Your task to perform on an android device: Open the phone app and click the voicemail tab. Image 0: 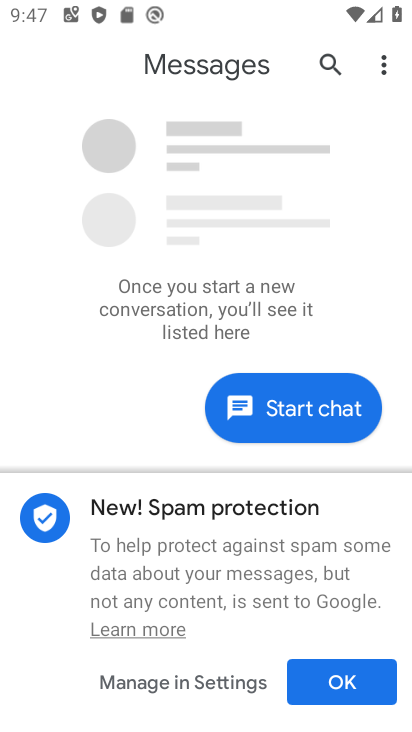
Step 0: press home button
Your task to perform on an android device: Open the phone app and click the voicemail tab. Image 1: 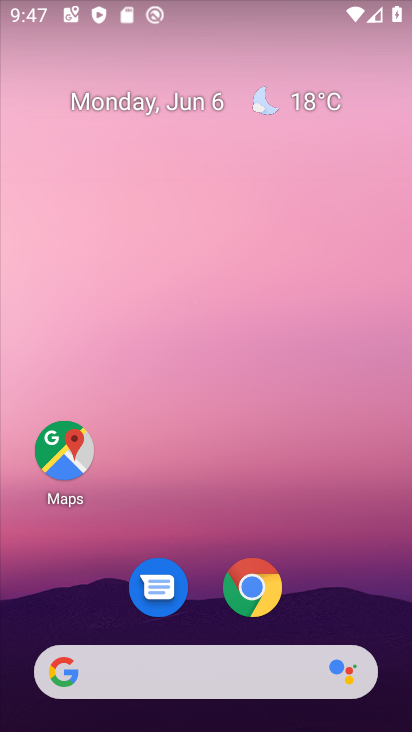
Step 1: drag from (351, 567) to (206, 48)
Your task to perform on an android device: Open the phone app and click the voicemail tab. Image 2: 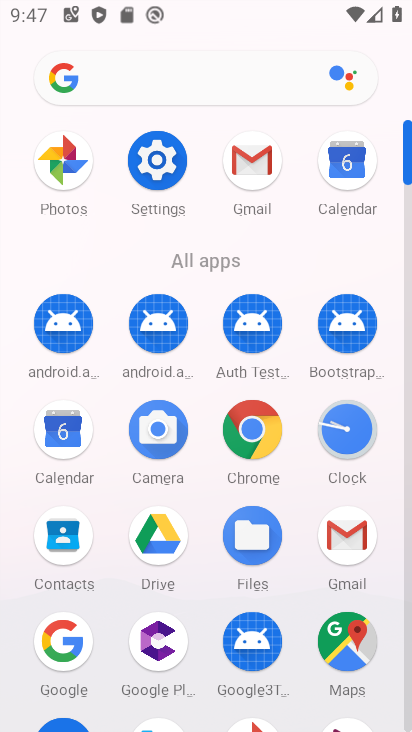
Step 2: click (406, 480)
Your task to perform on an android device: Open the phone app and click the voicemail tab. Image 3: 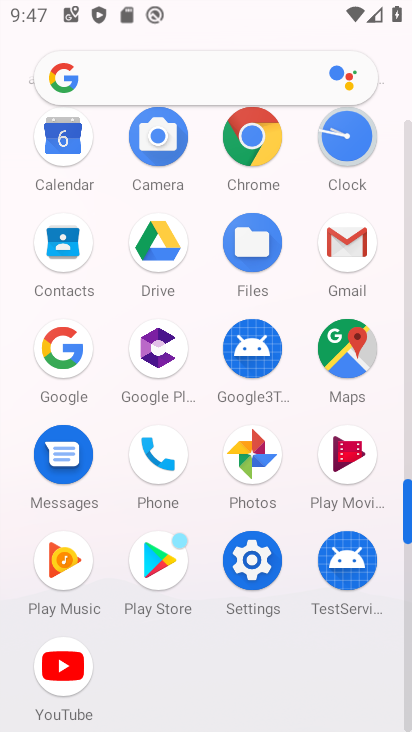
Step 3: click (154, 472)
Your task to perform on an android device: Open the phone app and click the voicemail tab. Image 4: 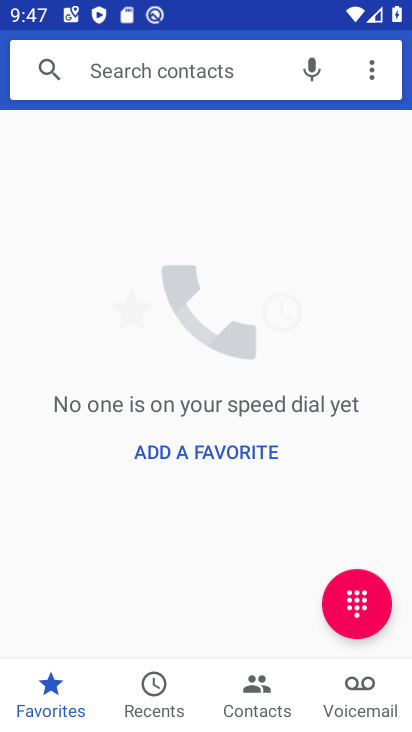
Step 4: click (333, 701)
Your task to perform on an android device: Open the phone app and click the voicemail tab. Image 5: 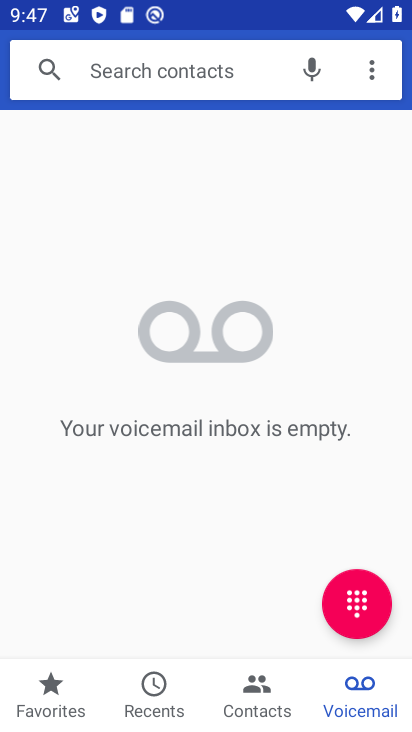
Step 5: task complete